Your task to perform on an android device: Do I have any events this weekend? Image 0: 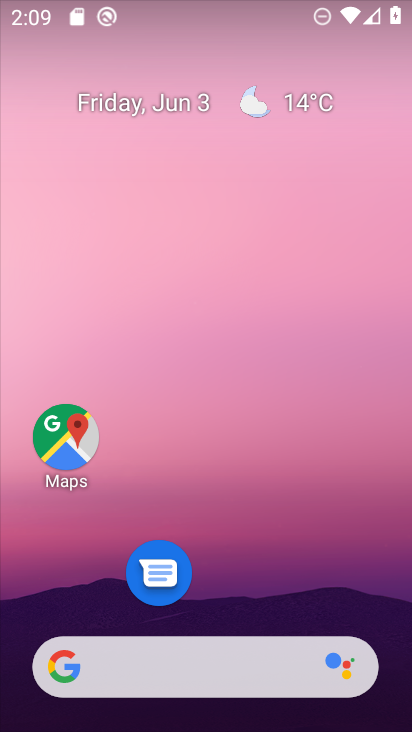
Step 0: drag from (275, 660) to (301, 135)
Your task to perform on an android device: Do I have any events this weekend? Image 1: 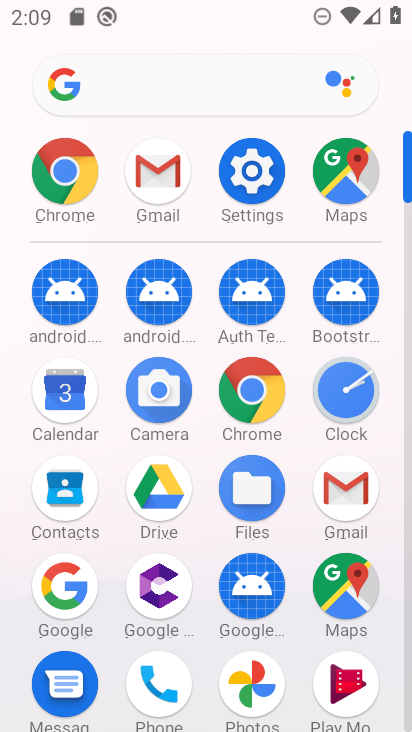
Step 1: click (60, 402)
Your task to perform on an android device: Do I have any events this weekend? Image 2: 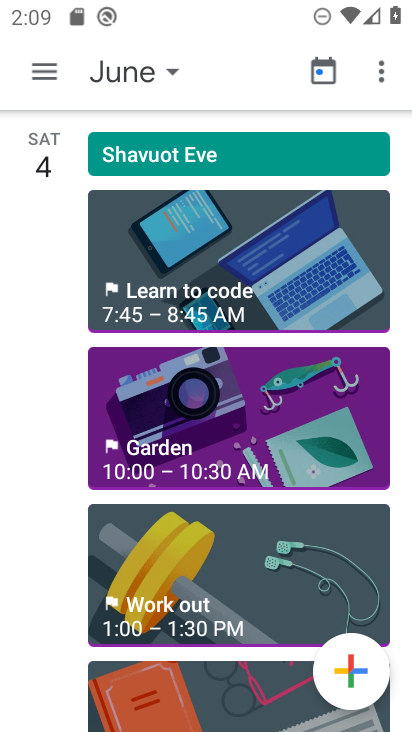
Step 2: click (168, 71)
Your task to perform on an android device: Do I have any events this weekend? Image 3: 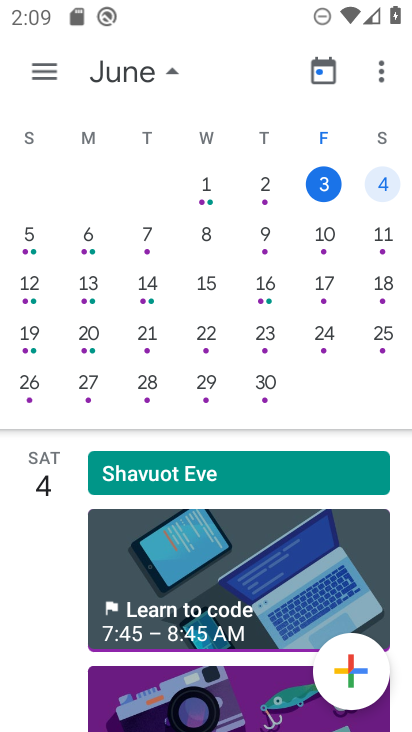
Step 3: click (382, 187)
Your task to perform on an android device: Do I have any events this weekend? Image 4: 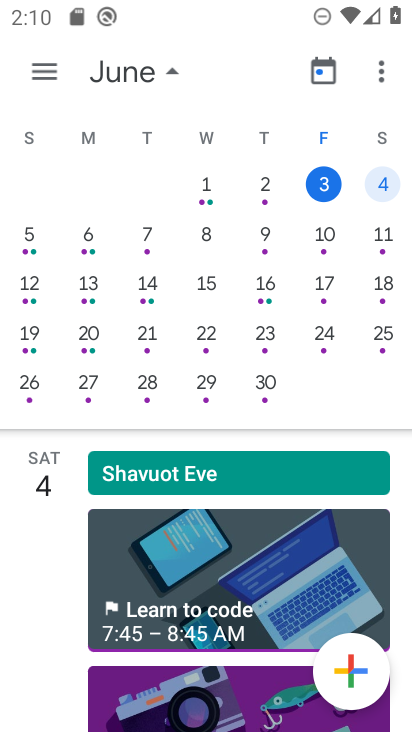
Step 4: task complete